Your task to perform on an android device: Go to Wikipedia Image 0: 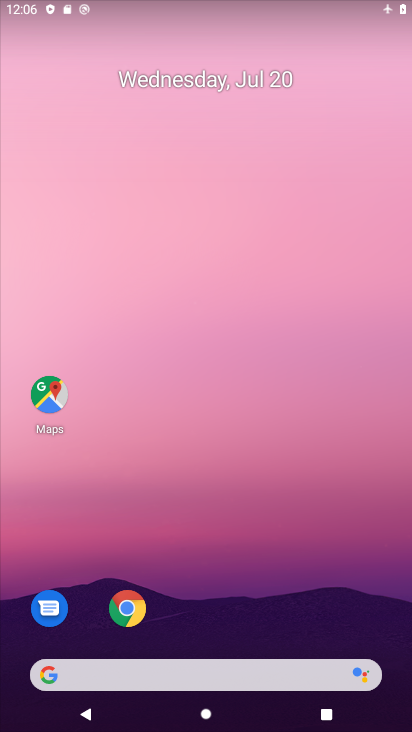
Step 0: click (127, 609)
Your task to perform on an android device: Go to Wikipedia Image 1: 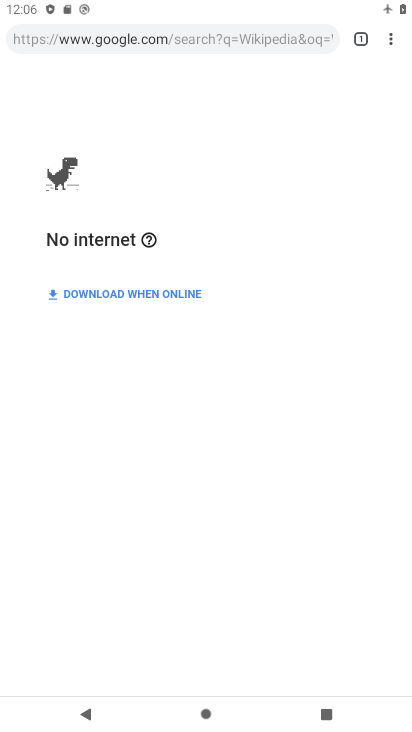
Step 1: click (267, 39)
Your task to perform on an android device: Go to Wikipedia Image 2: 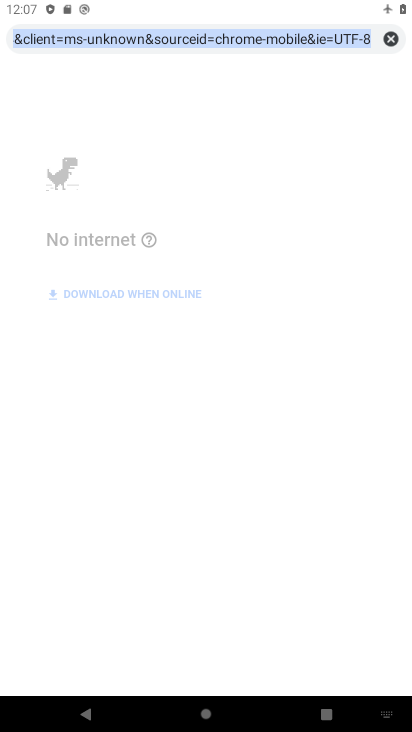
Step 2: type "Wikipedia"
Your task to perform on an android device: Go to Wikipedia Image 3: 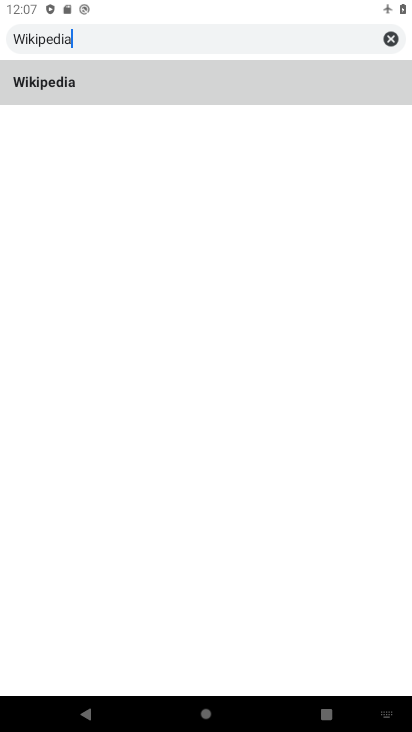
Step 3: click (57, 82)
Your task to perform on an android device: Go to Wikipedia Image 4: 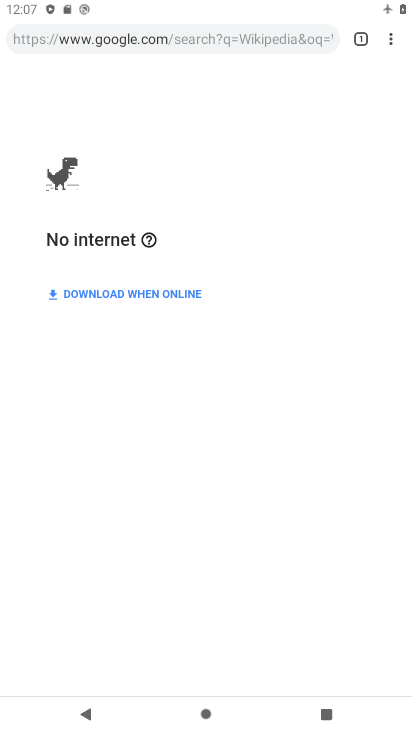
Step 4: task complete